Your task to perform on an android device: Open maps Image 0: 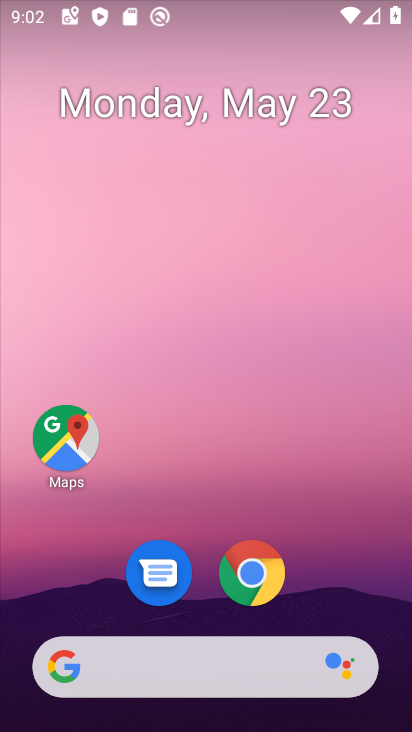
Step 0: drag from (376, 584) to (396, 277)
Your task to perform on an android device: Open maps Image 1: 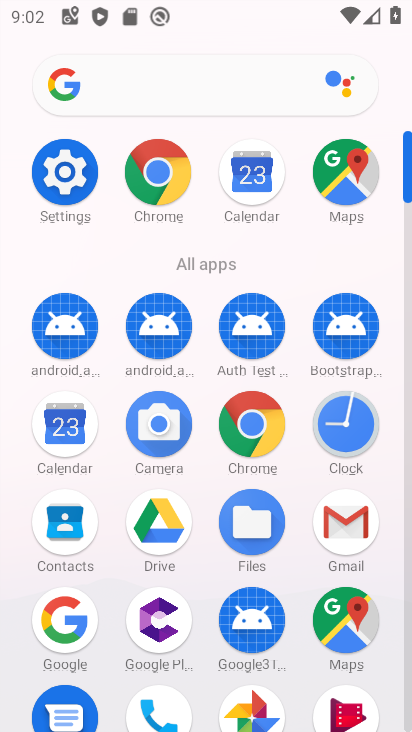
Step 1: drag from (388, 560) to (402, 451)
Your task to perform on an android device: Open maps Image 2: 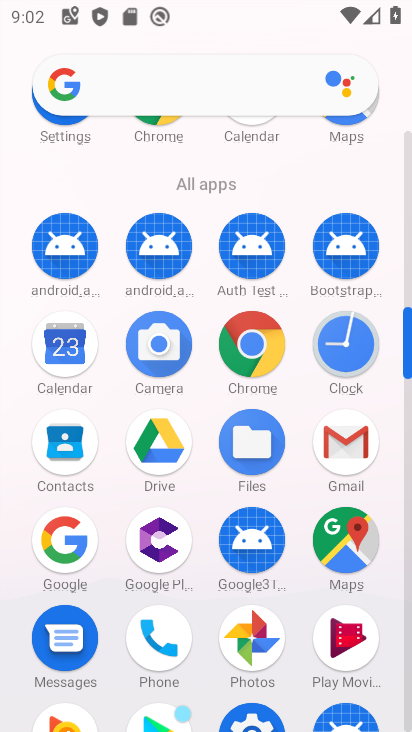
Step 2: drag from (390, 537) to (384, 392)
Your task to perform on an android device: Open maps Image 3: 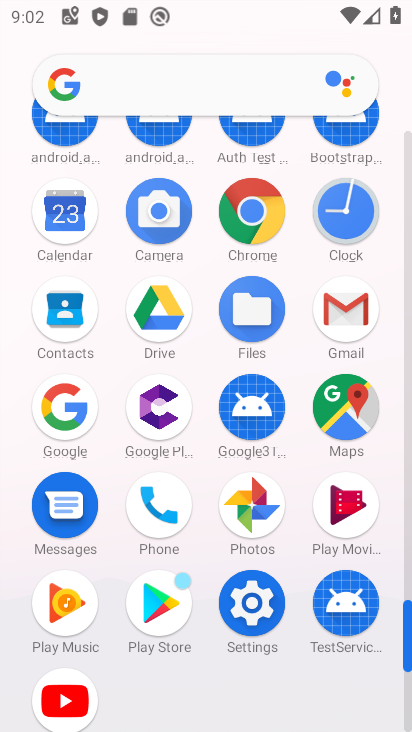
Step 3: drag from (392, 522) to (394, 452)
Your task to perform on an android device: Open maps Image 4: 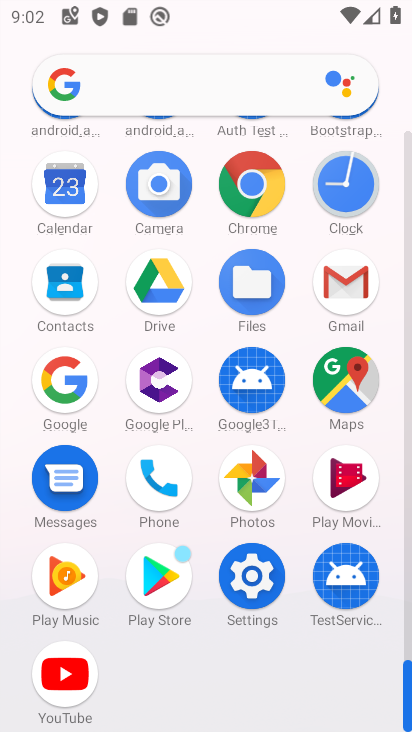
Step 4: click (365, 388)
Your task to perform on an android device: Open maps Image 5: 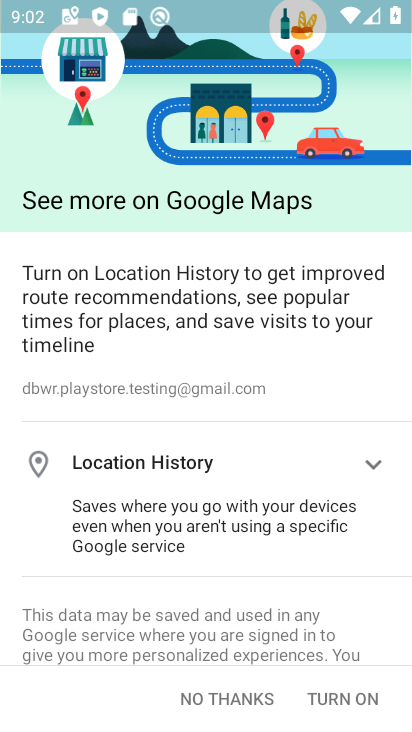
Step 5: task complete